Your task to perform on an android device: Go to accessibility settings Image 0: 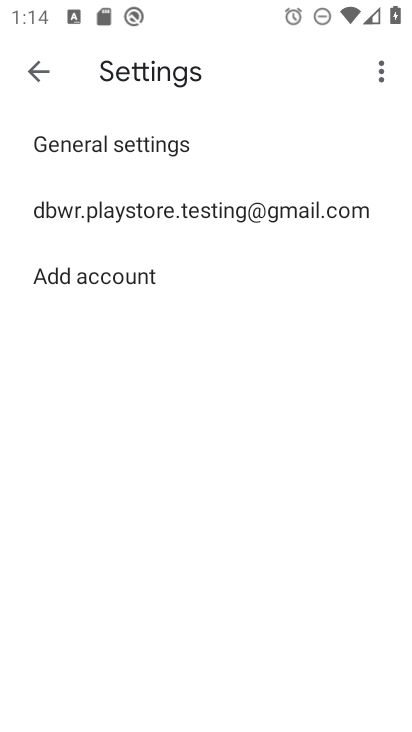
Step 0: press home button
Your task to perform on an android device: Go to accessibility settings Image 1: 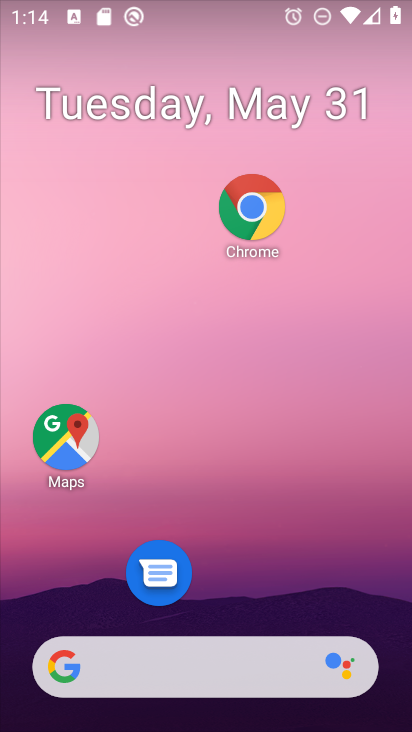
Step 1: drag from (161, 673) to (160, 0)
Your task to perform on an android device: Go to accessibility settings Image 2: 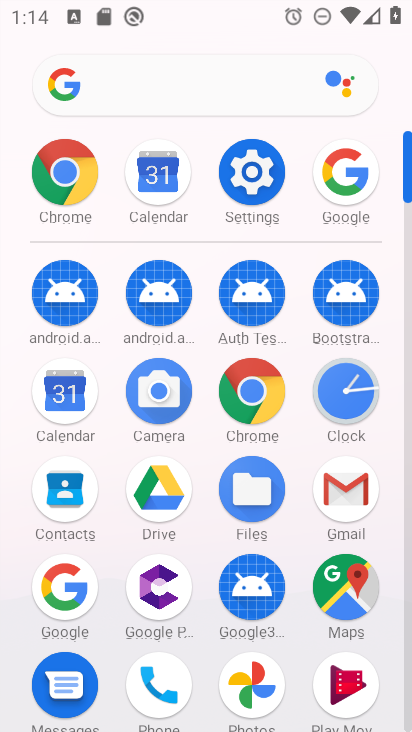
Step 2: click (265, 193)
Your task to perform on an android device: Go to accessibility settings Image 3: 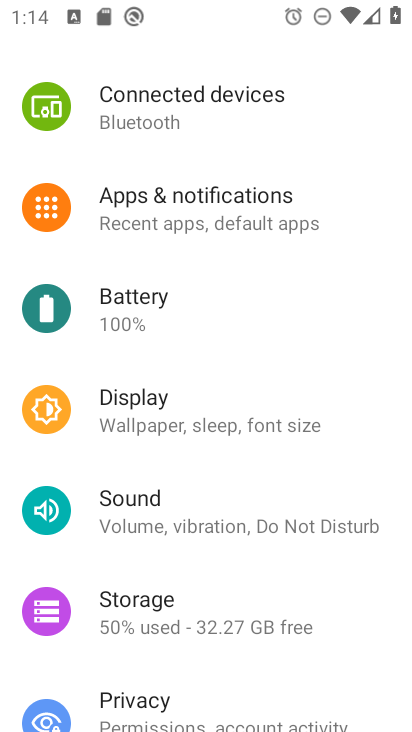
Step 3: drag from (187, 540) to (163, 263)
Your task to perform on an android device: Go to accessibility settings Image 4: 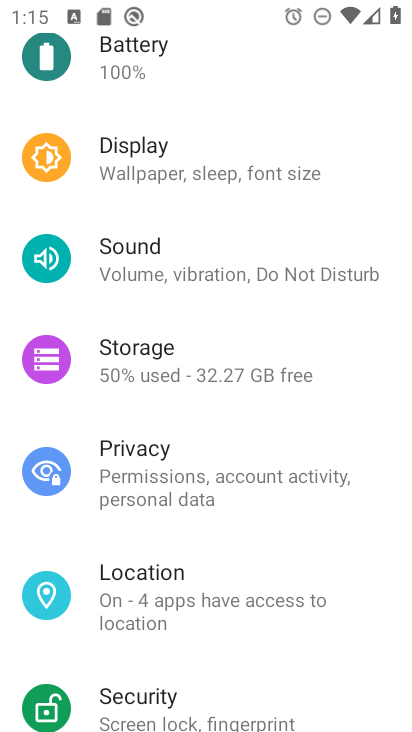
Step 4: drag from (214, 559) to (169, 289)
Your task to perform on an android device: Go to accessibility settings Image 5: 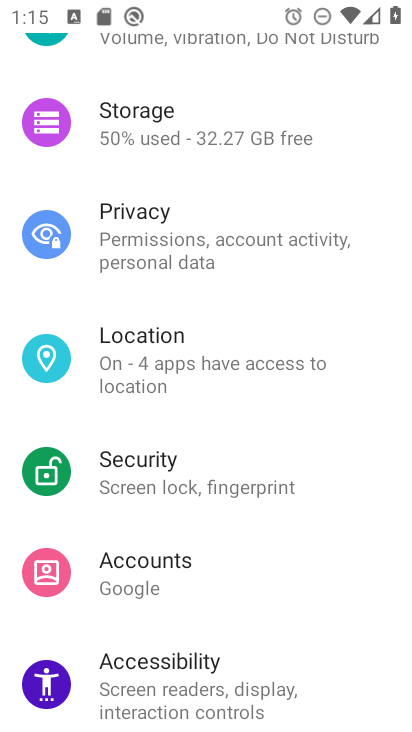
Step 5: drag from (162, 544) to (119, 377)
Your task to perform on an android device: Go to accessibility settings Image 6: 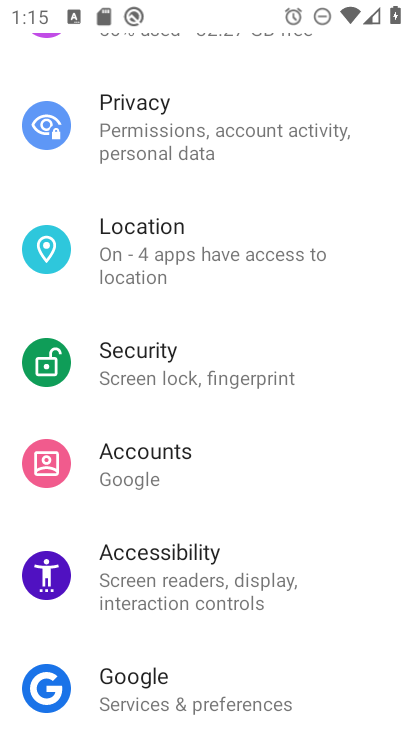
Step 6: click (163, 559)
Your task to perform on an android device: Go to accessibility settings Image 7: 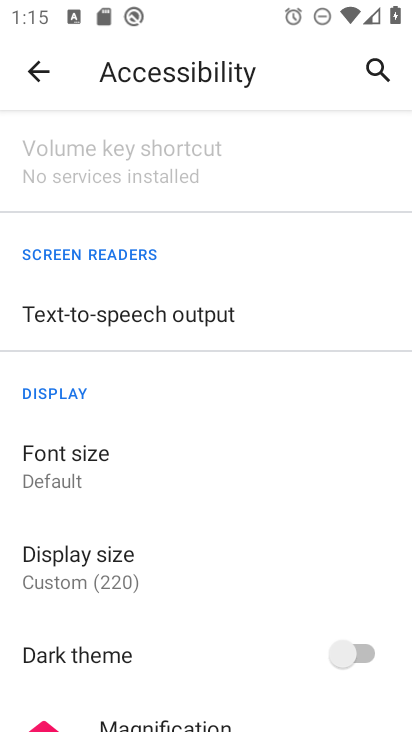
Step 7: task complete